Your task to perform on an android device: Open Yahoo.com Image 0: 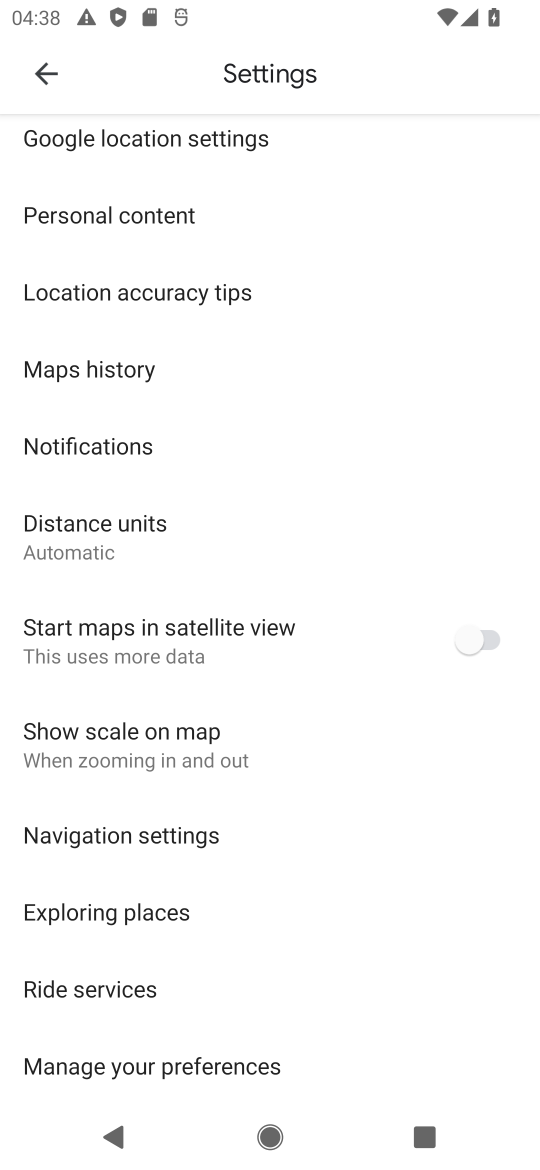
Step 0: press home button
Your task to perform on an android device: Open Yahoo.com Image 1: 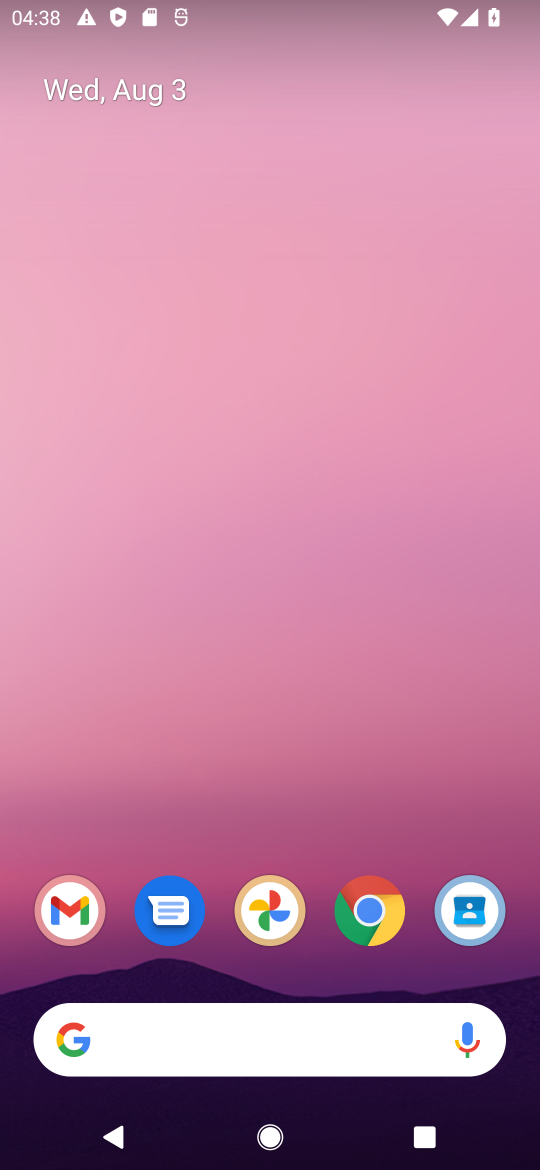
Step 1: drag from (268, 799) to (248, 26)
Your task to perform on an android device: Open Yahoo.com Image 2: 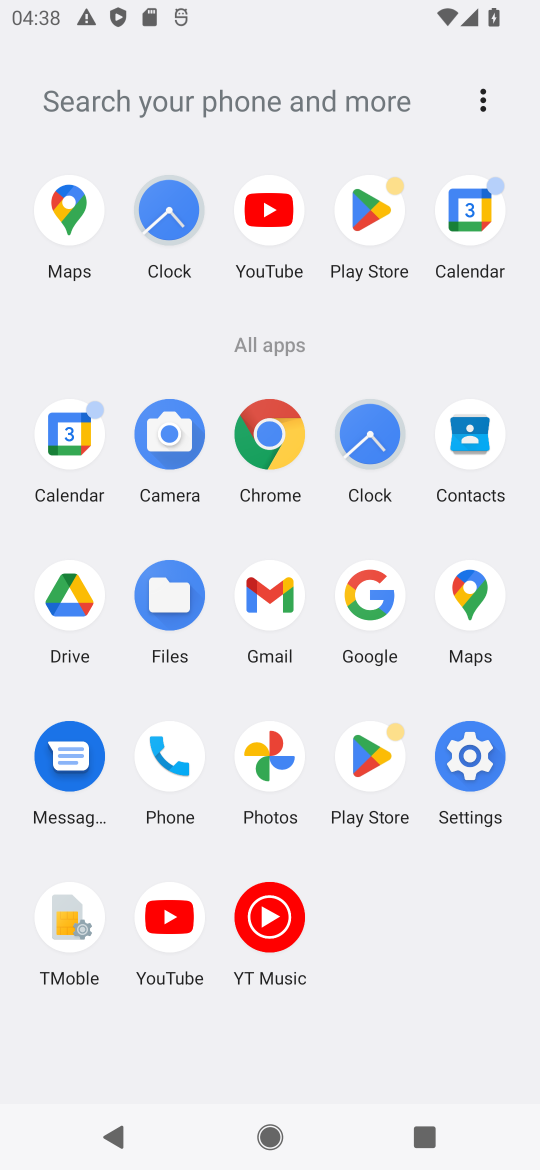
Step 2: click (165, 913)
Your task to perform on an android device: Open Yahoo.com Image 3: 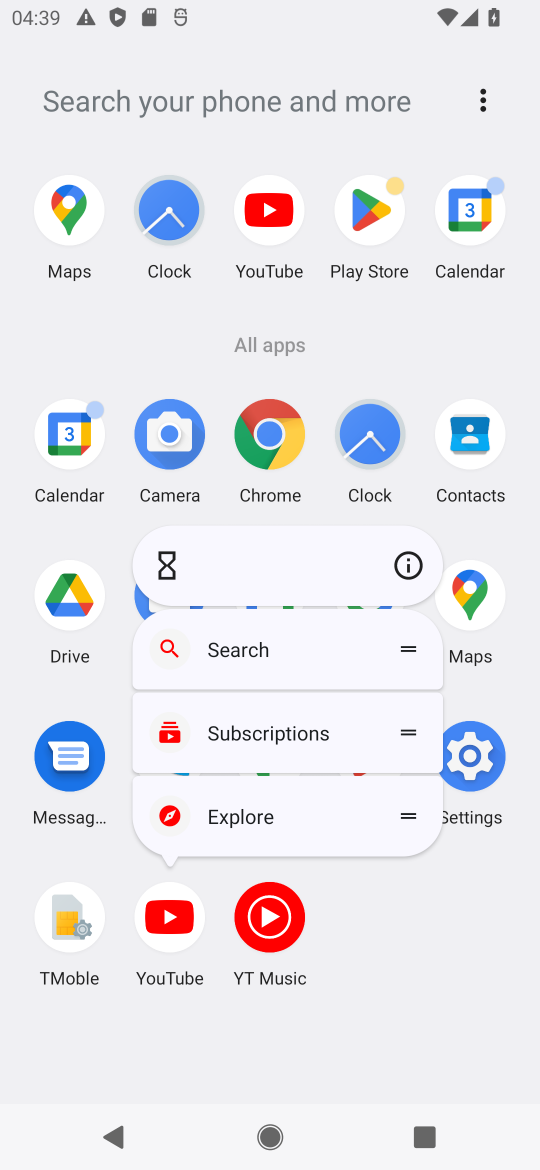
Step 3: click (266, 413)
Your task to perform on an android device: Open Yahoo.com Image 4: 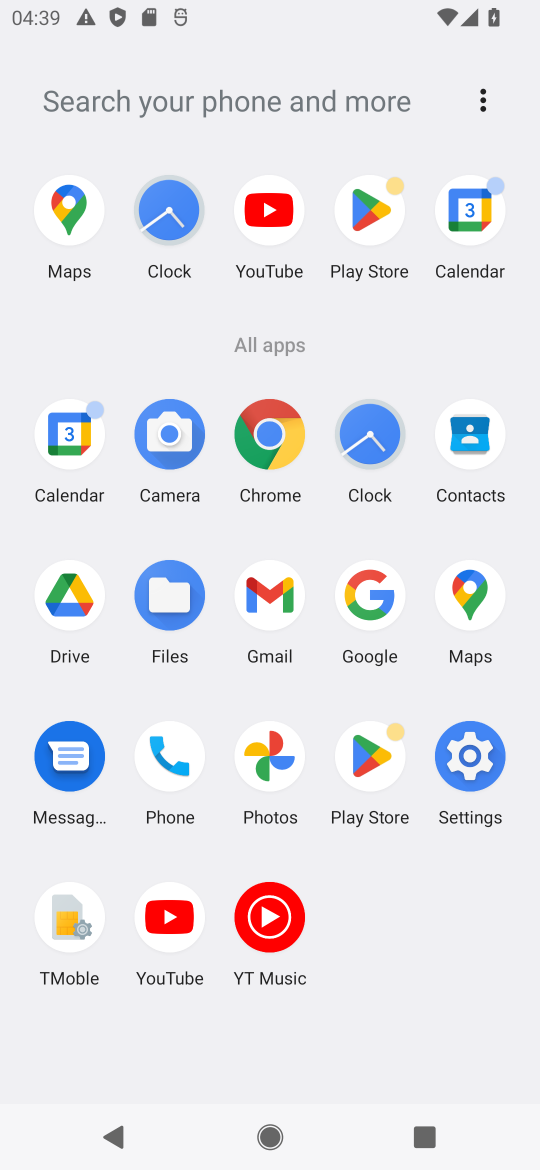
Step 4: click (269, 421)
Your task to perform on an android device: Open Yahoo.com Image 5: 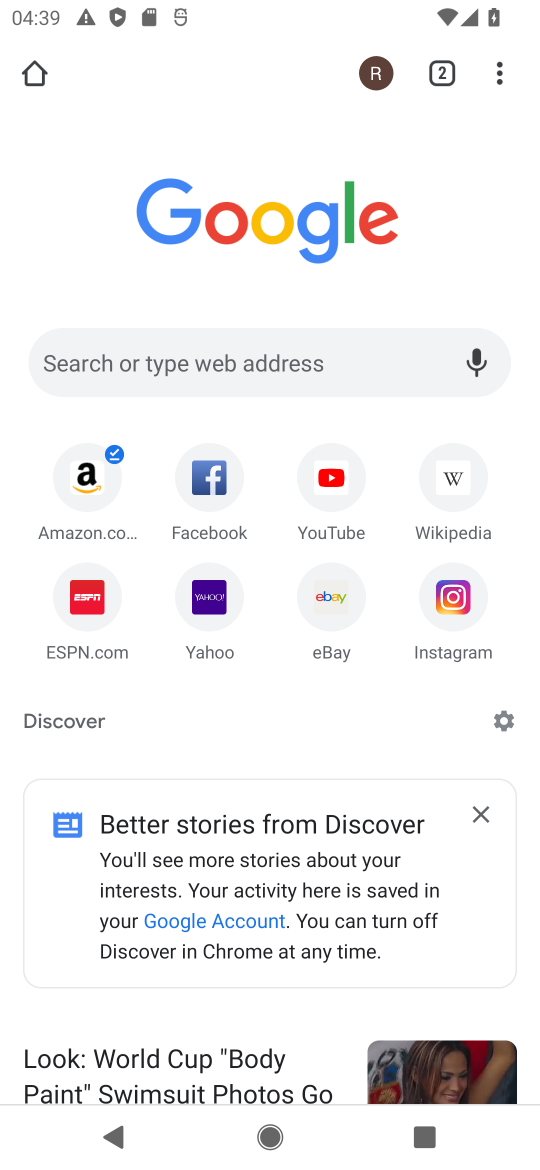
Step 5: click (210, 595)
Your task to perform on an android device: Open Yahoo.com Image 6: 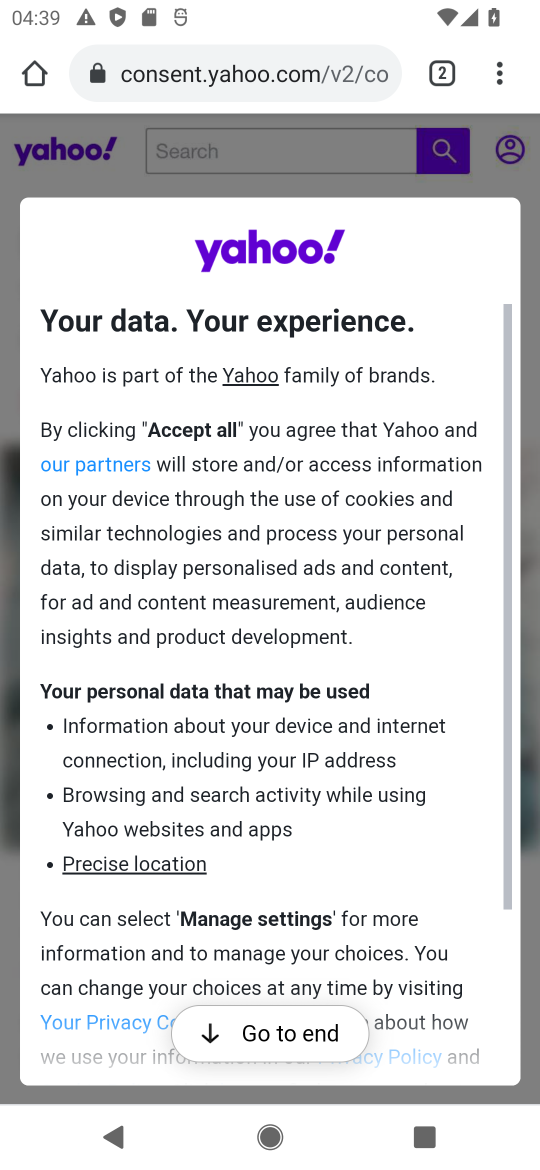
Step 6: click (251, 1026)
Your task to perform on an android device: Open Yahoo.com Image 7: 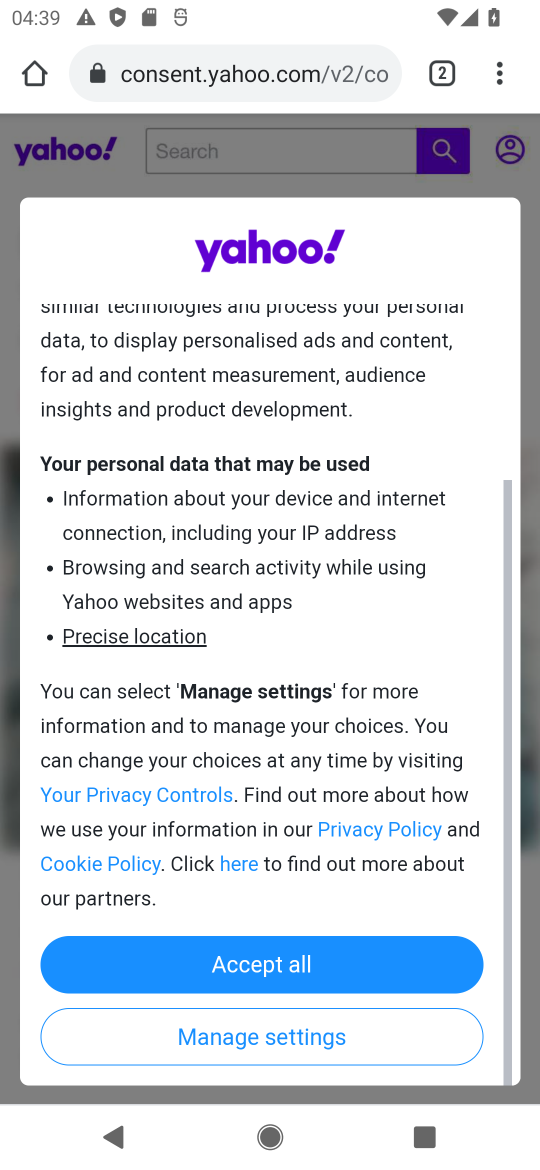
Step 7: click (263, 959)
Your task to perform on an android device: Open Yahoo.com Image 8: 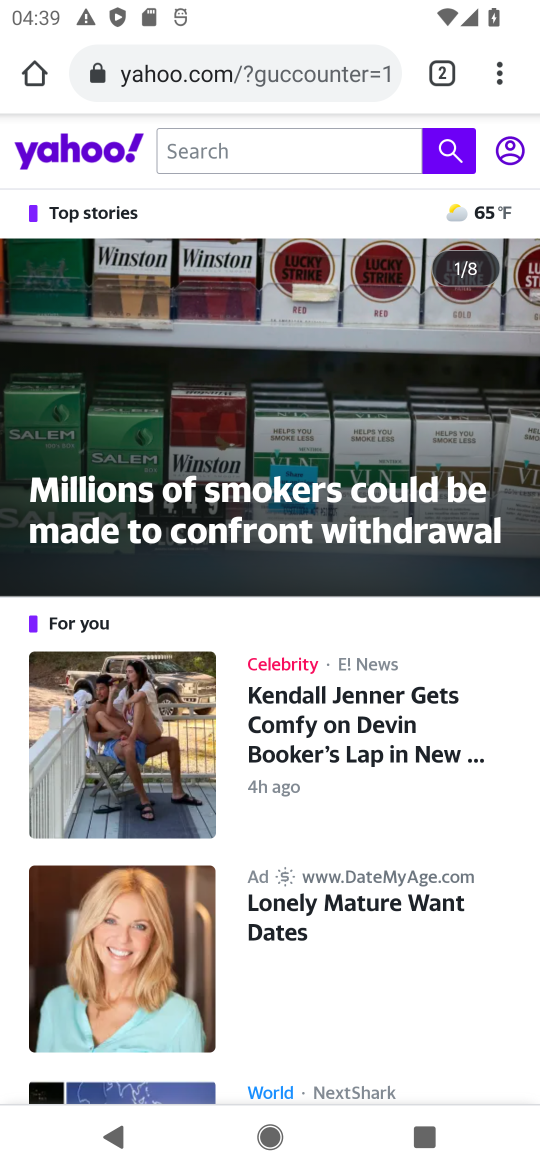
Step 8: task complete